Your task to perform on an android device: Go to Yahoo.com Image 0: 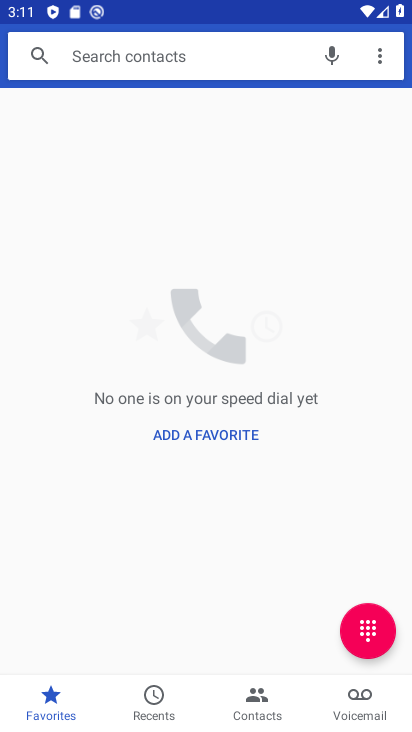
Step 0: press home button
Your task to perform on an android device: Go to Yahoo.com Image 1: 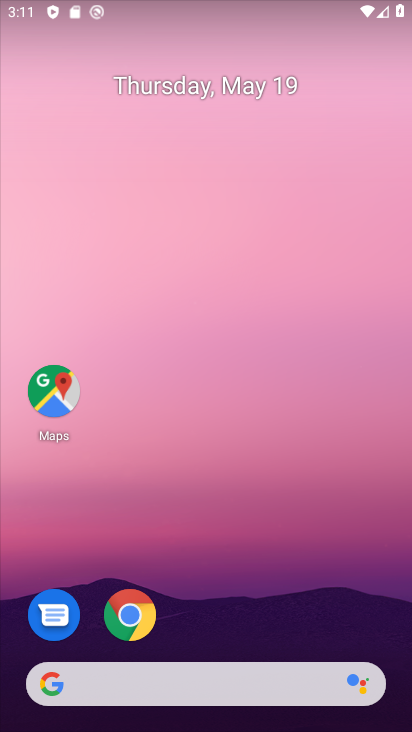
Step 1: click (118, 626)
Your task to perform on an android device: Go to Yahoo.com Image 2: 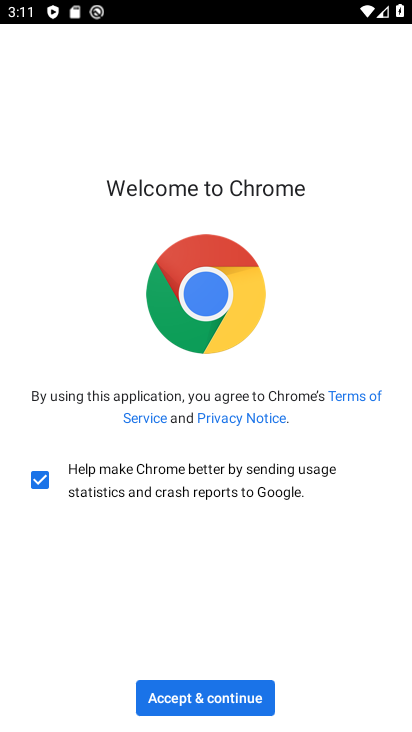
Step 2: click (171, 704)
Your task to perform on an android device: Go to Yahoo.com Image 3: 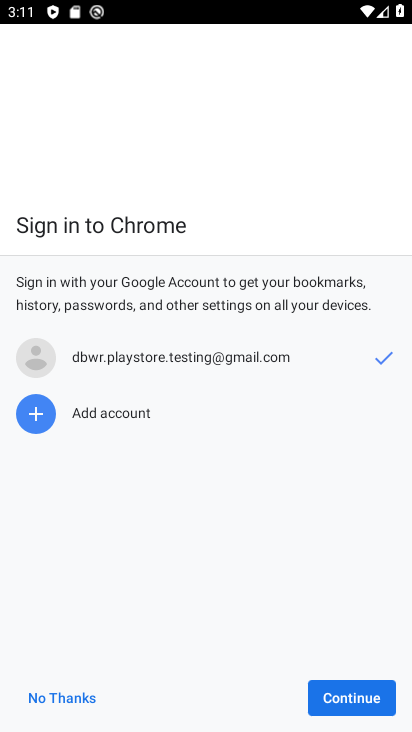
Step 3: click (326, 703)
Your task to perform on an android device: Go to Yahoo.com Image 4: 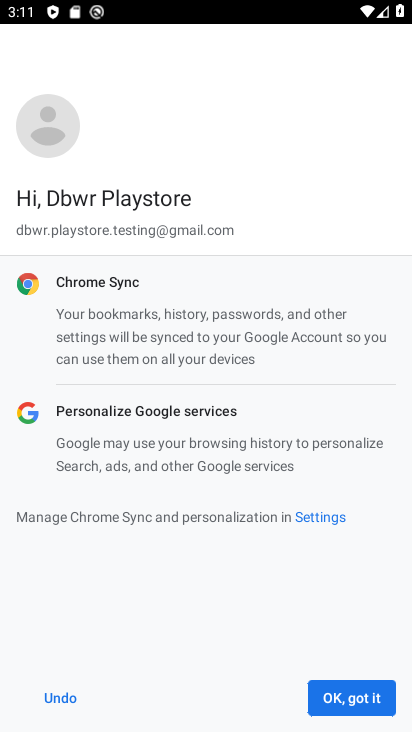
Step 4: click (326, 703)
Your task to perform on an android device: Go to Yahoo.com Image 5: 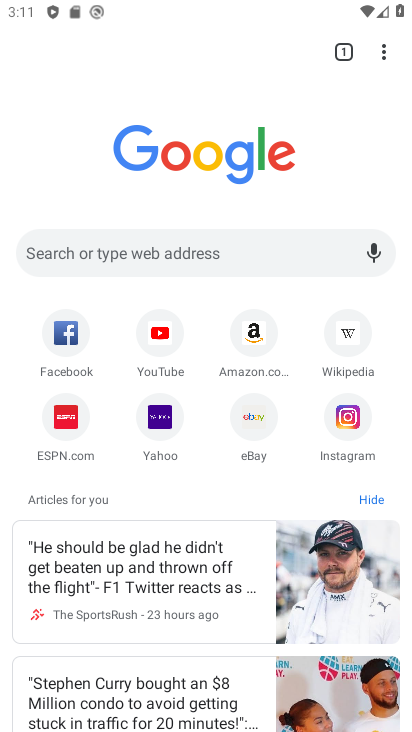
Step 5: click (169, 413)
Your task to perform on an android device: Go to Yahoo.com Image 6: 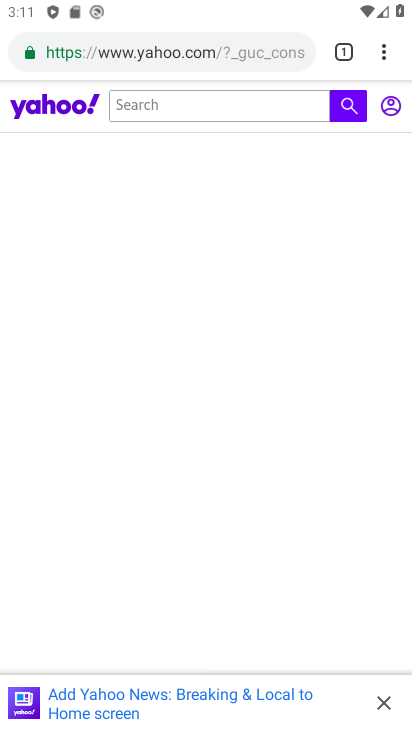
Step 6: task complete